Your task to perform on an android device: turn off improve location accuracy Image 0: 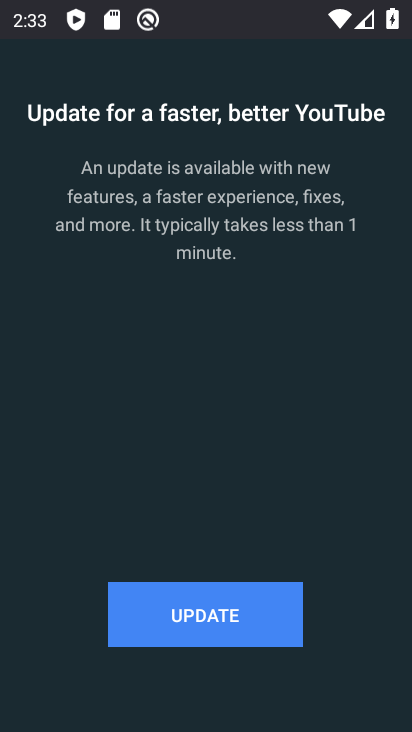
Step 0: press home button
Your task to perform on an android device: turn off improve location accuracy Image 1: 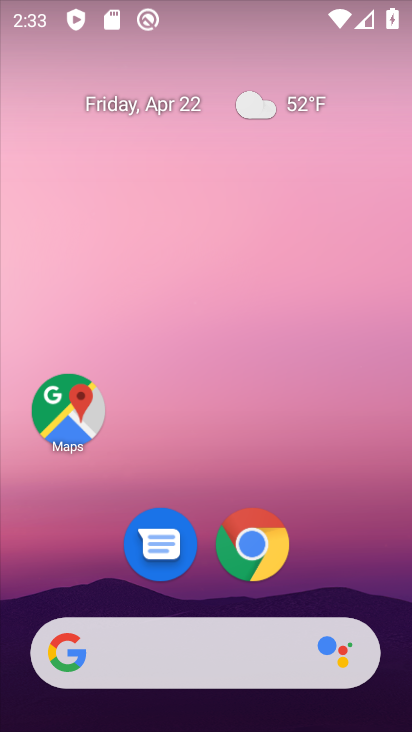
Step 1: drag from (160, 613) to (148, 47)
Your task to perform on an android device: turn off improve location accuracy Image 2: 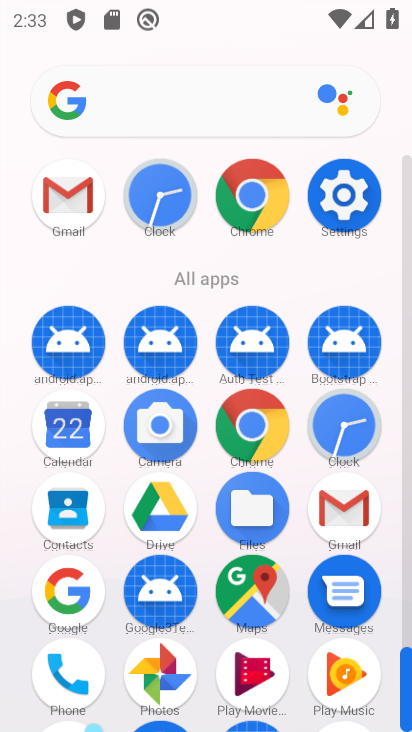
Step 2: click (354, 191)
Your task to perform on an android device: turn off improve location accuracy Image 3: 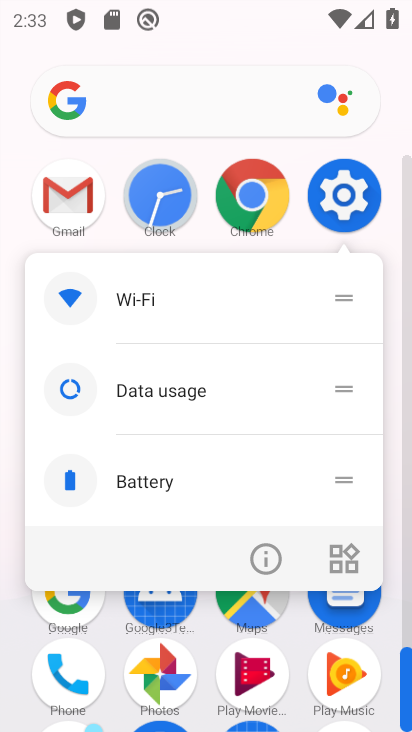
Step 3: click (359, 198)
Your task to perform on an android device: turn off improve location accuracy Image 4: 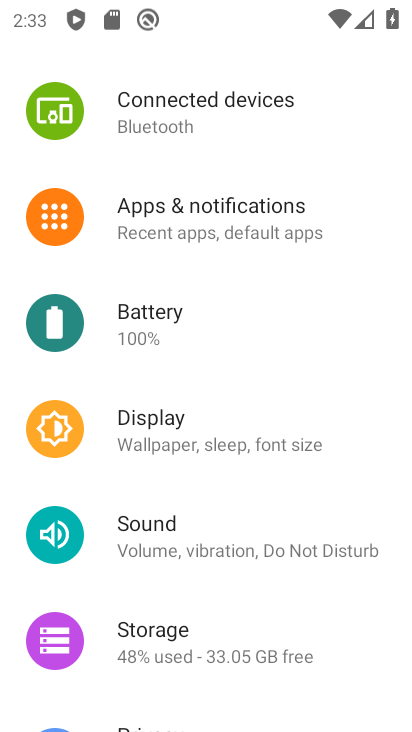
Step 4: drag from (198, 262) to (174, 663)
Your task to perform on an android device: turn off improve location accuracy Image 5: 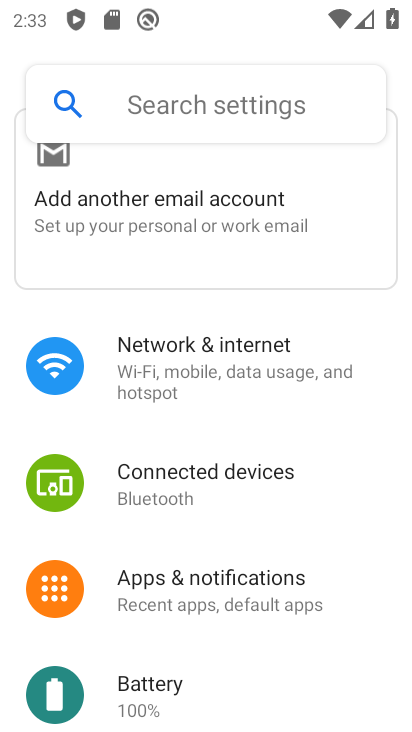
Step 5: drag from (184, 634) to (148, 152)
Your task to perform on an android device: turn off improve location accuracy Image 6: 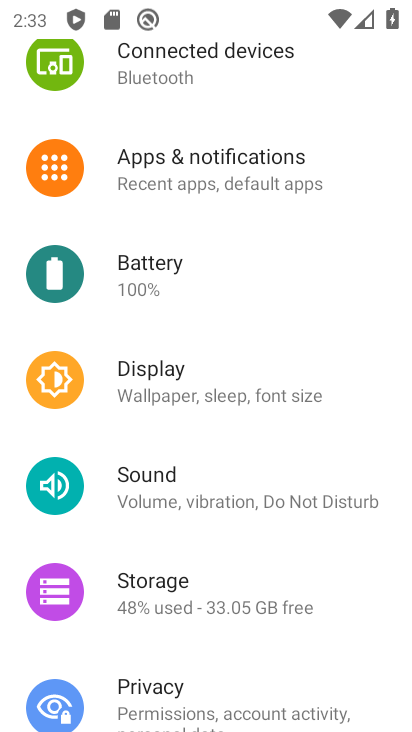
Step 6: drag from (182, 543) to (178, 105)
Your task to perform on an android device: turn off improve location accuracy Image 7: 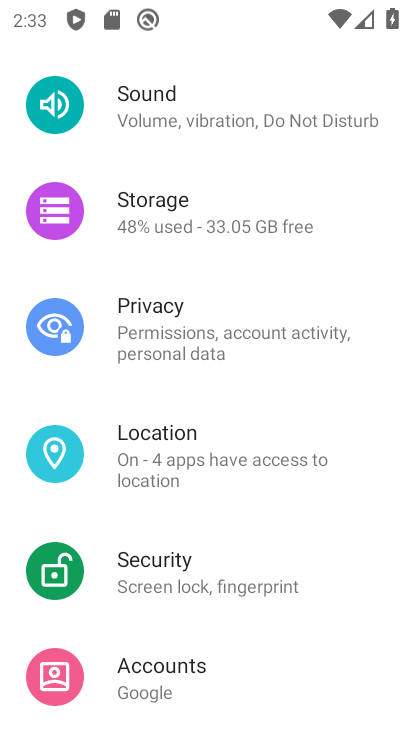
Step 7: drag from (195, 575) to (183, 170)
Your task to perform on an android device: turn off improve location accuracy Image 8: 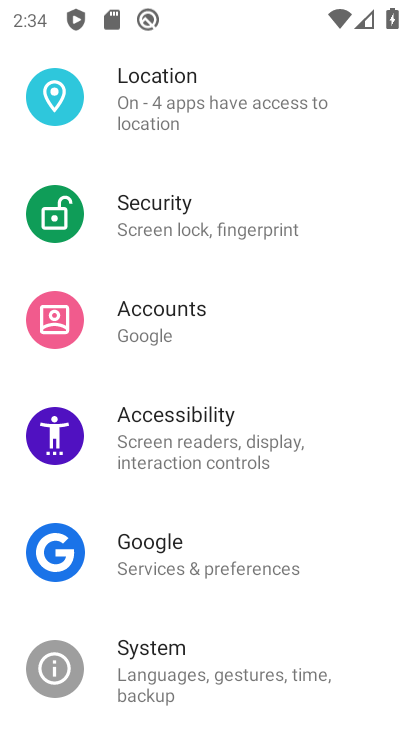
Step 8: drag from (206, 547) to (215, 500)
Your task to perform on an android device: turn off improve location accuracy Image 9: 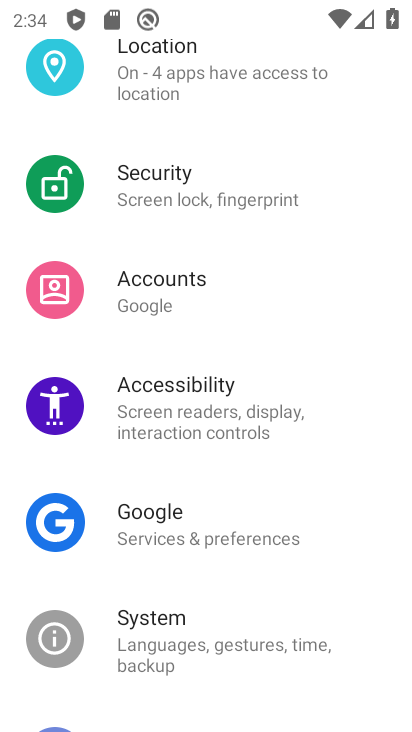
Step 9: click (126, 76)
Your task to perform on an android device: turn off improve location accuracy Image 10: 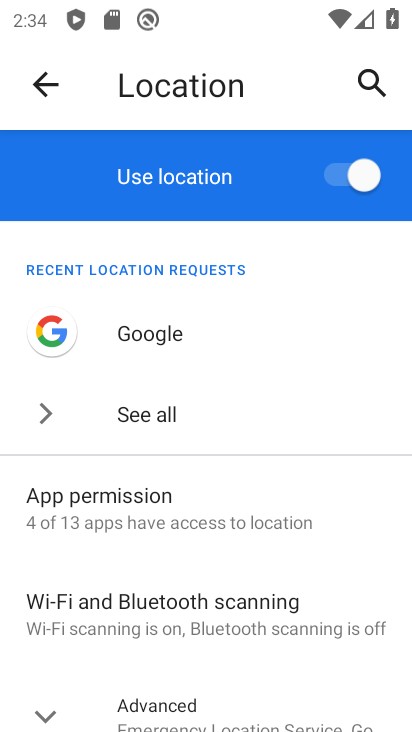
Step 10: drag from (254, 587) to (166, 87)
Your task to perform on an android device: turn off improve location accuracy Image 11: 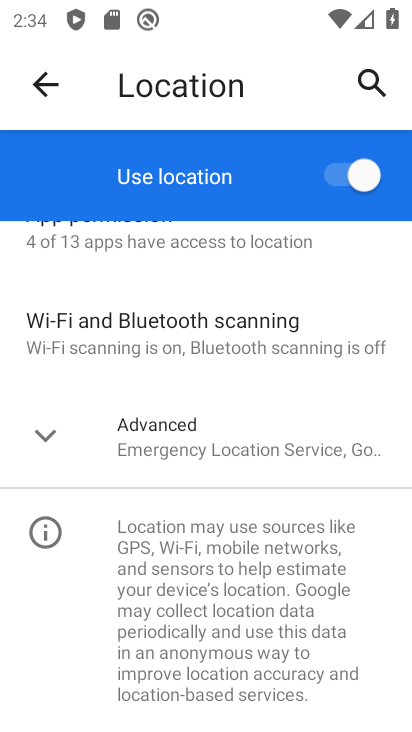
Step 11: click (141, 429)
Your task to perform on an android device: turn off improve location accuracy Image 12: 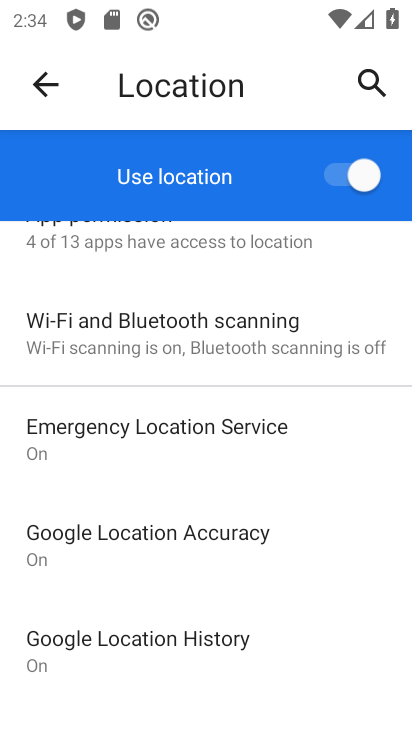
Step 12: click (166, 543)
Your task to perform on an android device: turn off improve location accuracy Image 13: 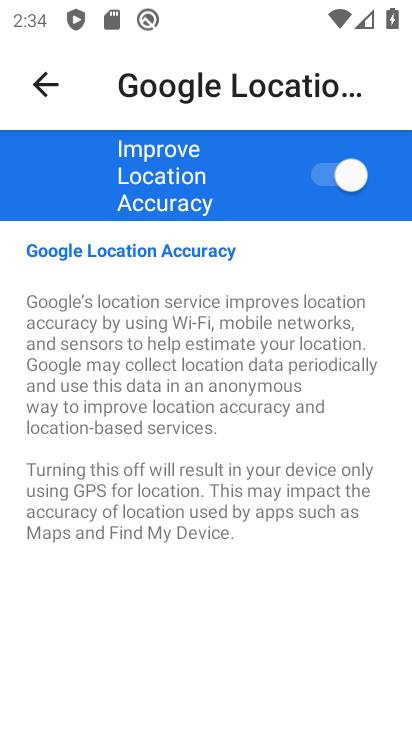
Step 13: click (332, 175)
Your task to perform on an android device: turn off improve location accuracy Image 14: 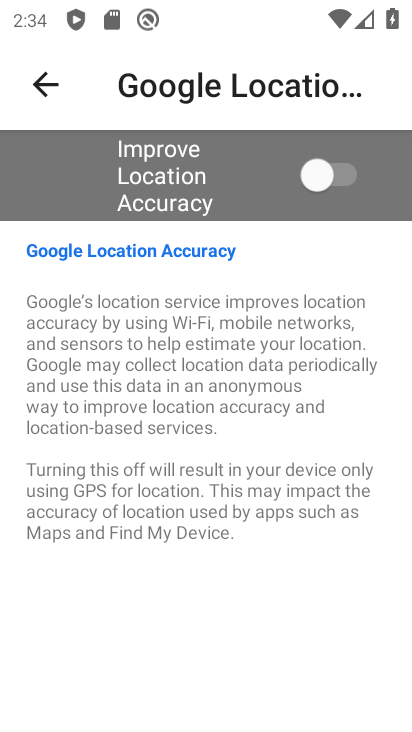
Step 14: task complete